Your task to perform on an android device: What's on my calendar today? Image 0: 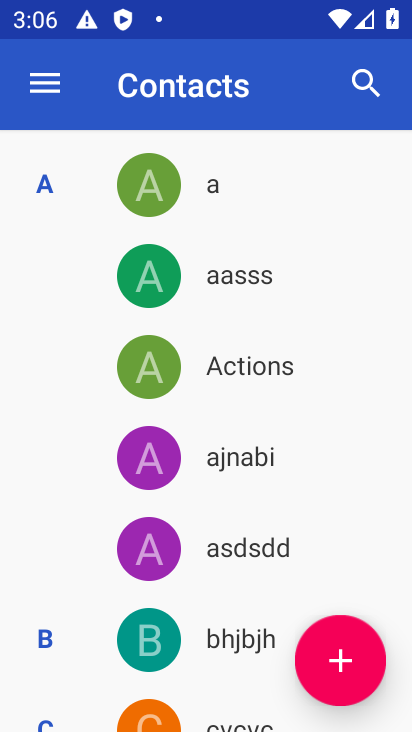
Step 0: press home button
Your task to perform on an android device: What's on my calendar today? Image 1: 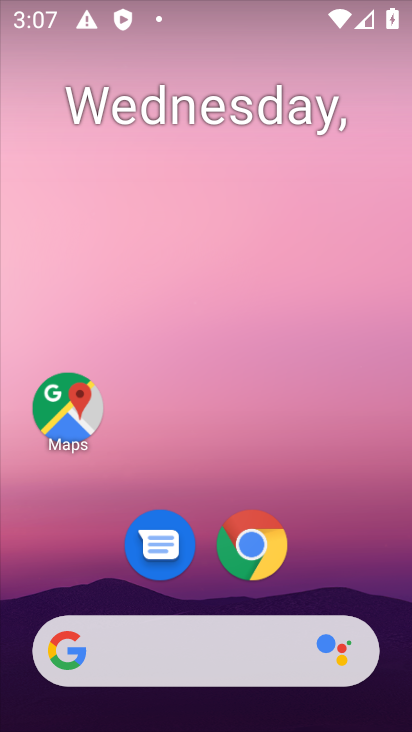
Step 1: drag from (226, 627) to (195, 152)
Your task to perform on an android device: What's on my calendar today? Image 2: 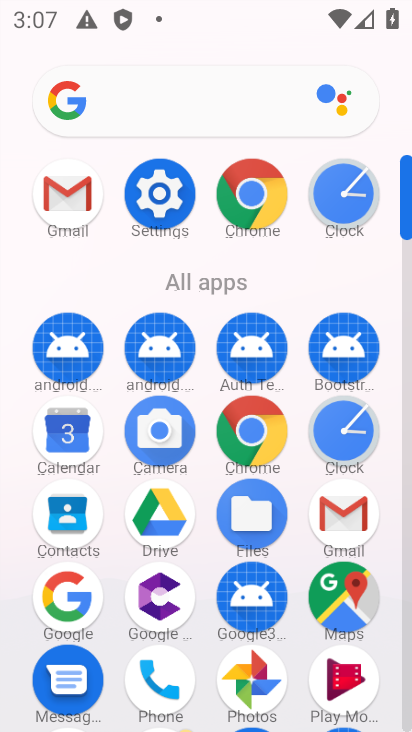
Step 2: click (75, 420)
Your task to perform on an android device: What's on my calendar today? Image 3: 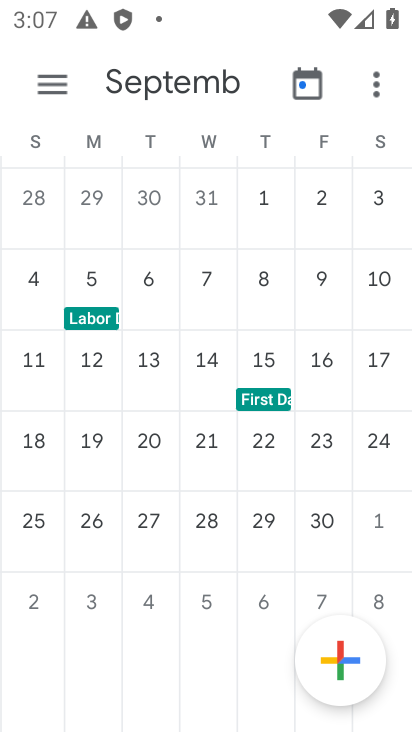
Step 3: click (58, 91)
Your task to perform on an android device: What's on my calendar today? Image 4: 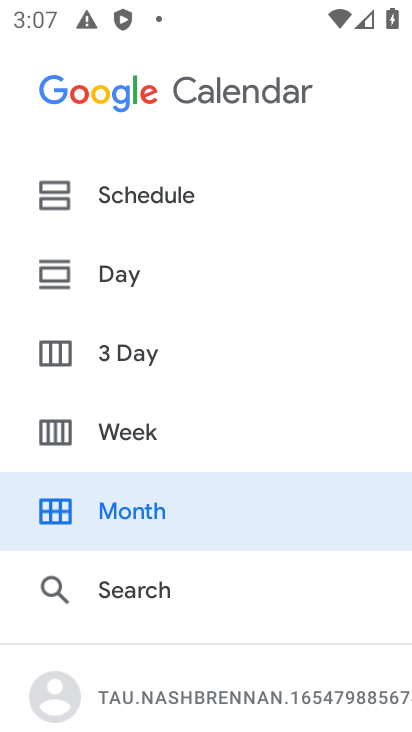
Step 4: click (135, 210)
Your task to perform on an android device: What's on my calendar today? Image 5: 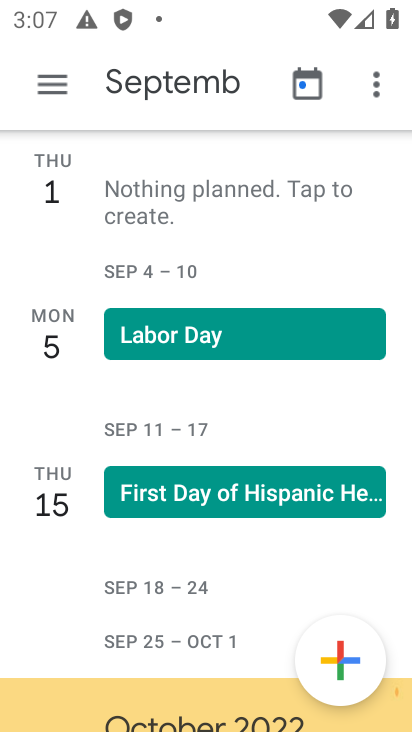
Step 5: click (151, 86)
Your task to perform on an android device: What's on my calendar today? Image 6: 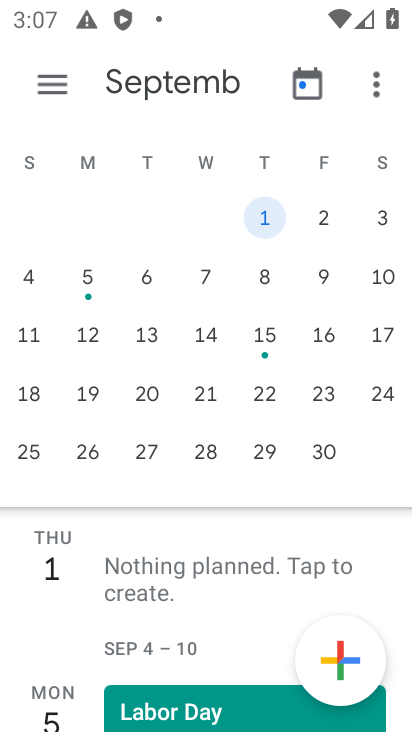
Step 6: drag from (72, 267) to (401, 222)
Your task to perform on an android device: What's on my calendar today? Image 7: 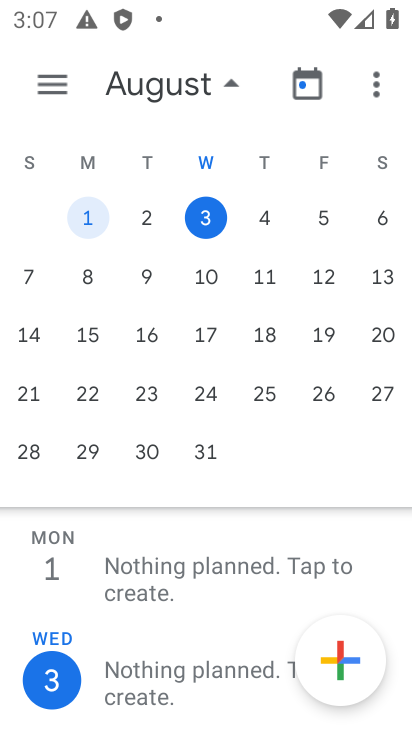
Step 7: click (215, 221)
Your task to perform on an android device: What's on my calendar today? Image 8: 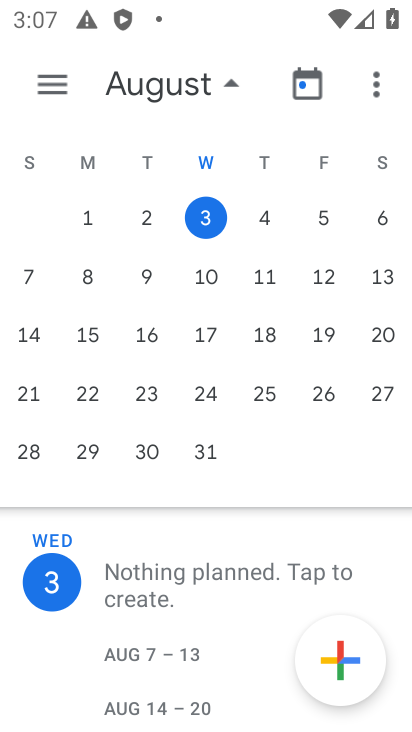
Step 8: click (232, 71)
Your task to perform on an android device: What's on my calendar today? Image 9: 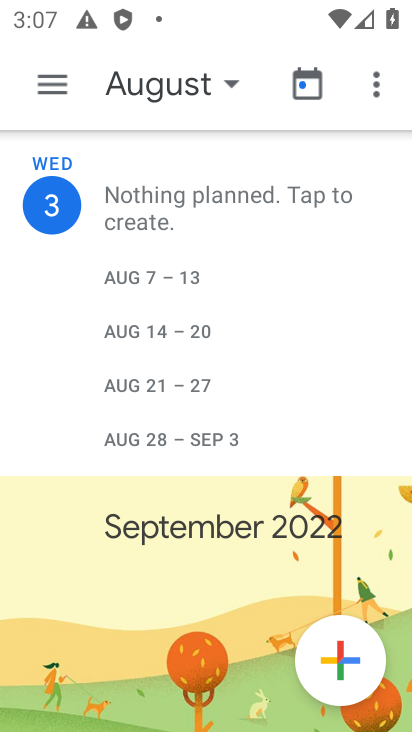
Step 9: task complete